Your task to perform on an android device: Open display settings Image 0: 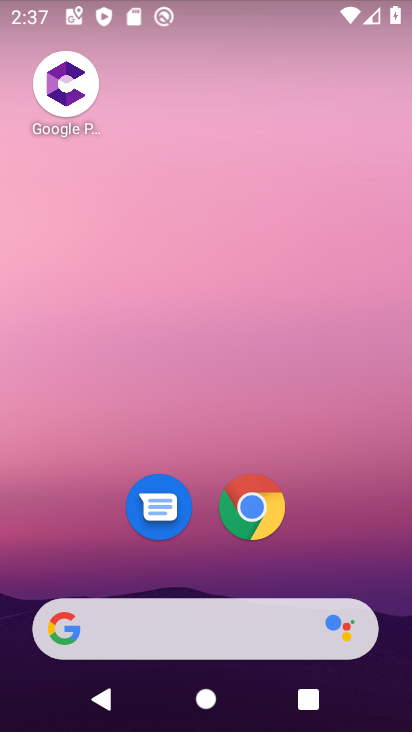
Step 0: drag from (215, 564) to (311, 0)
Your task to perform on an android device: Open display settings Image 1: 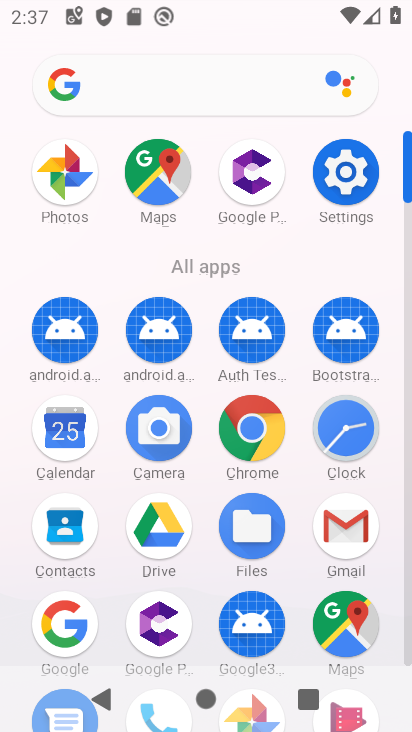
Step 1: click (343, 176)
Your task to perform on an android device: Open display settings Image 2: 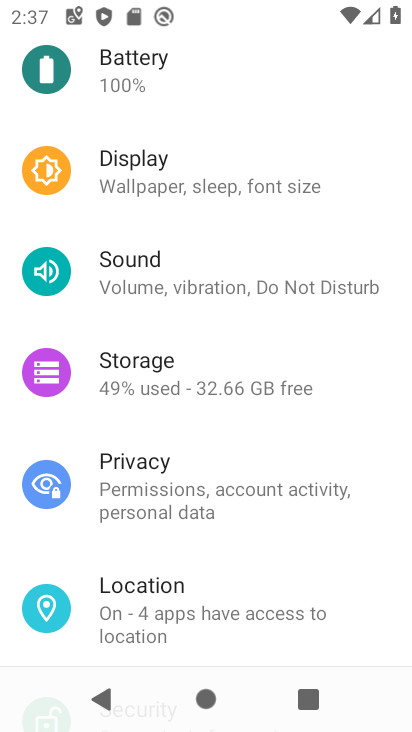
Step 2: click (217, 115)
Your task to perform on an android device: Open display settings Image 3: 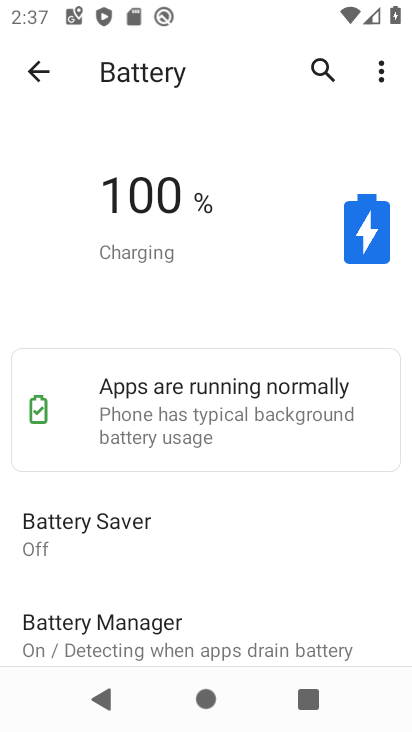
Step 3: click (43, 63)
Your task to perform on an android device: Open display settings Image 4: 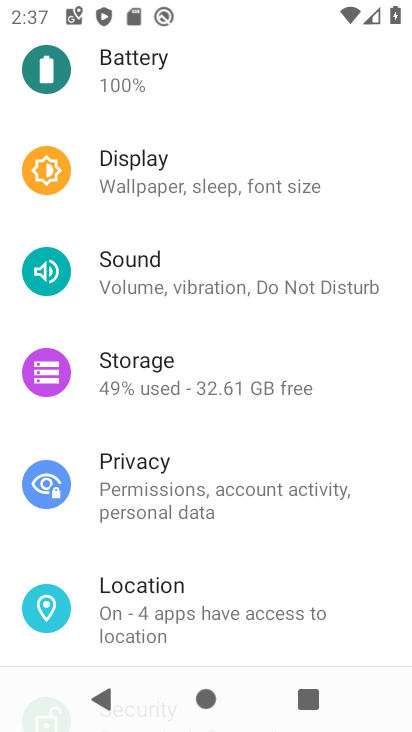
Step 4: click (177, 188)
Your task to perform on an android device: Open display settings Image 5: 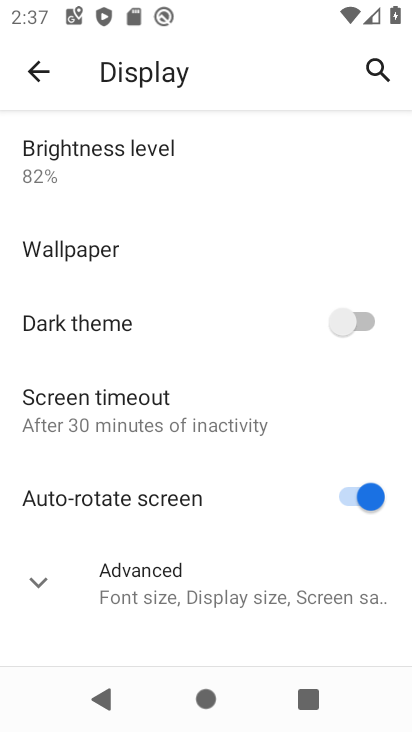
Step 5: task complete